Your task to perform on an android device: clear all cookies in the chrome app Image 0: 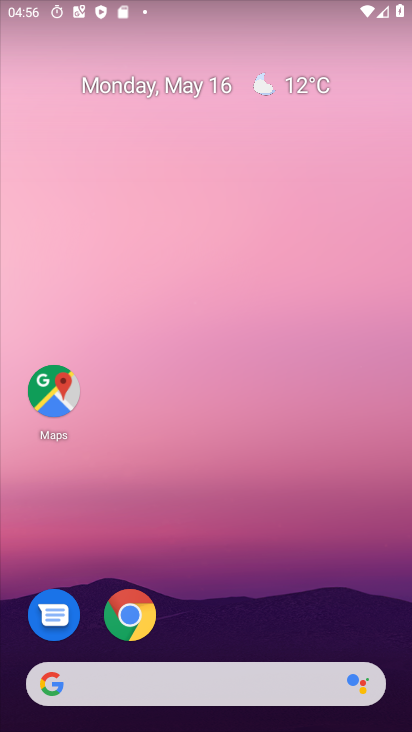
Step 0: drag from (343, 707) to (234, 182)
Your task to perform on an android device: clear all cookies in the chrome app Image 1: 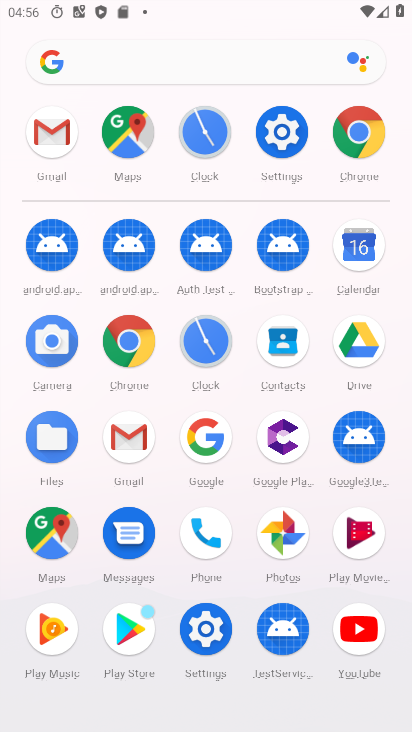
Step 1: click (349, 137)
Your task to perform on an android device: clear all cookies in the chrome app Image 2: 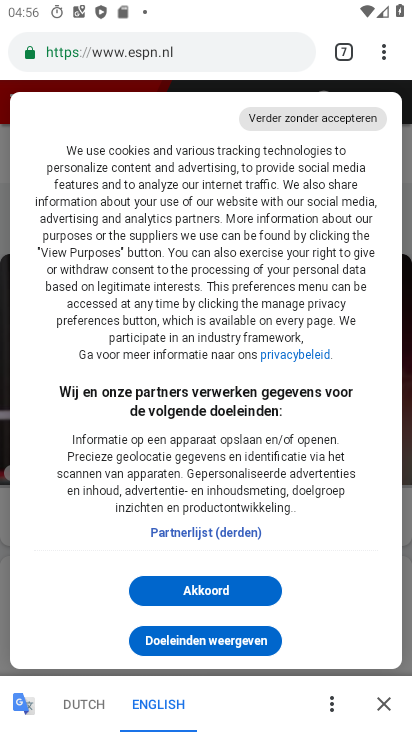
Step 2: press back button
Your task to perform on an android device: clear all cookies in the chrome app Image 3: 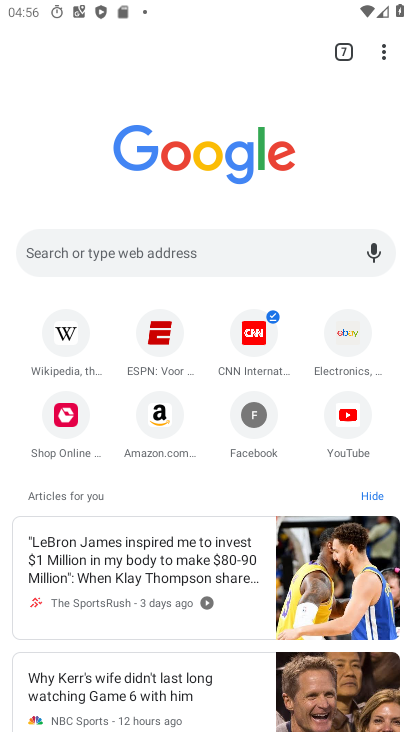
Step 3: drag from (381, 51) to (193, 483)
Your task to perform on an android device: clear all cookies in the chrome app Image 4: 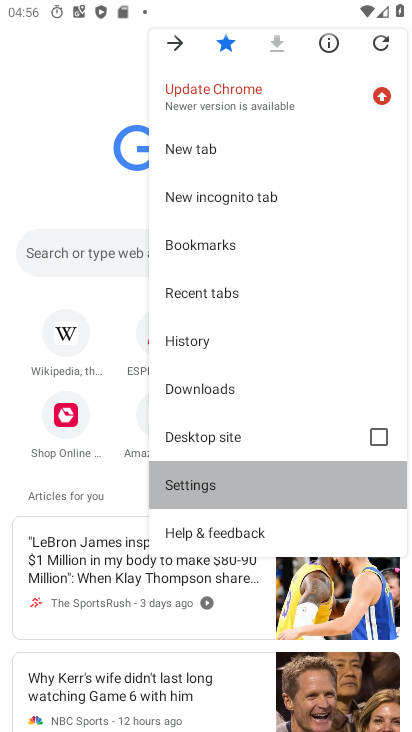
Step 4: click (193, 483)
Your task to perform on an android device: clear all cookies in the chrome app Image 5: 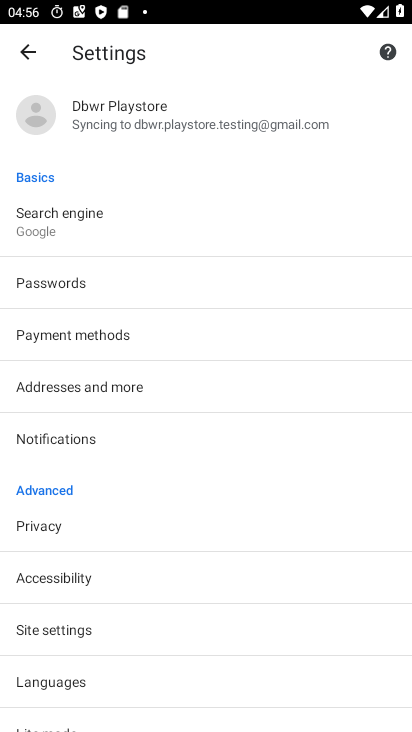
Step 5: drag from (90, 524) to (76, 142)
Your task to perform on an android device: clear all cookies in the chrome app Image 6: 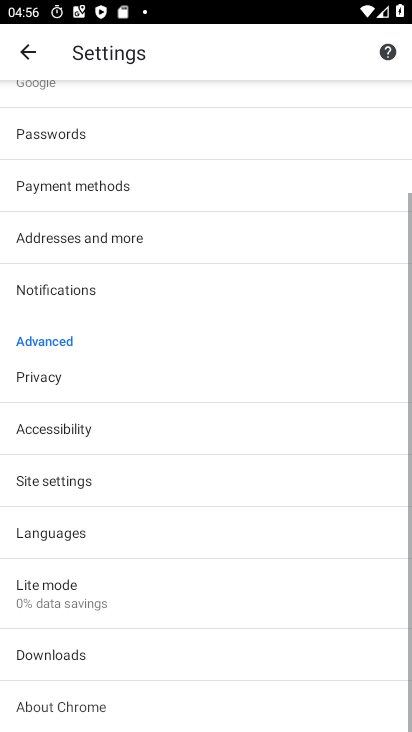
Step 6: drag from (93, 360) to (93, 94)
Your task to perform on an android device: clear all cookies in the chrome app Image 7: 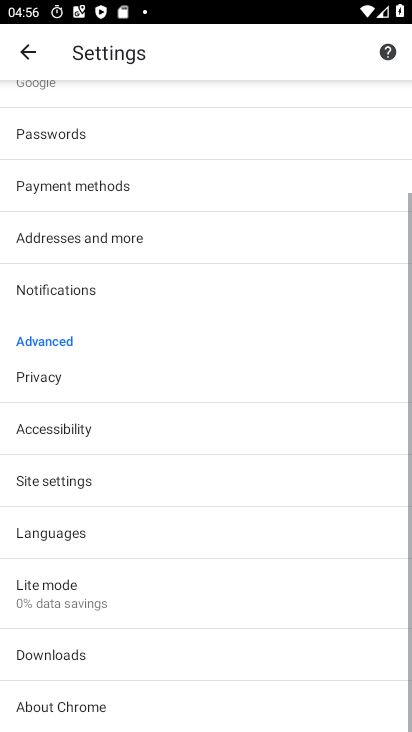
Step 7: click (61, 479)
Your task to perform on an android device: clear all cookies in the chrome app Image 8: 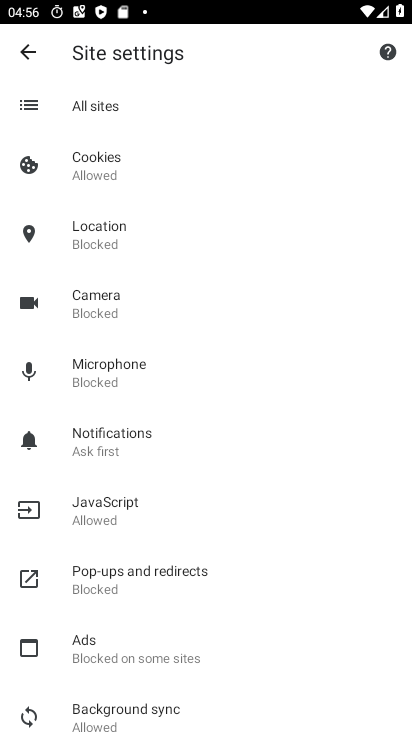
Step 8: click (83, 167)
Your task to perform on an android device: clear all cookies in the chrome app Image 9: 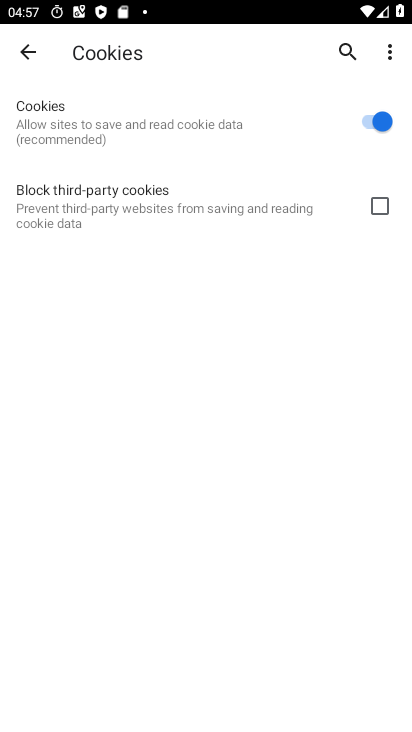
Step 9: task complete